Your task to perform on an android device: toggle translation in the chrome app Image 0: 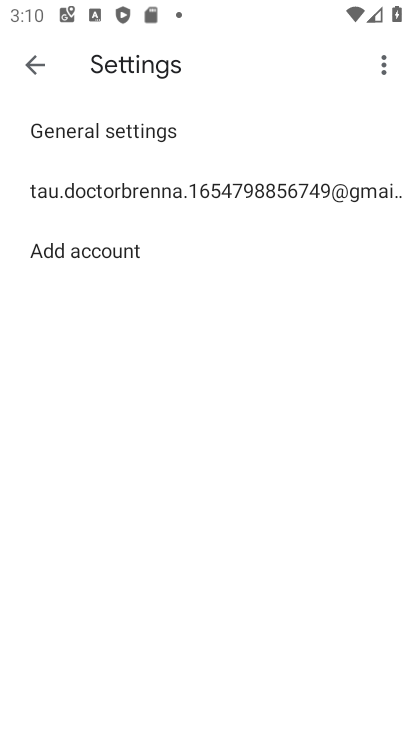
Step 0: press back button
Your task to perform on an android device: toggle translation in the chrome app Image 1: 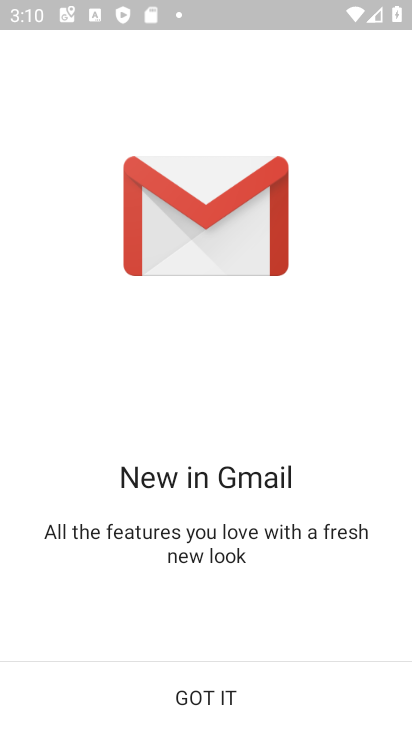
Step 1: click (155, 687)
Your task to perform on an android device: toggle translation in the chrome app Image 2: 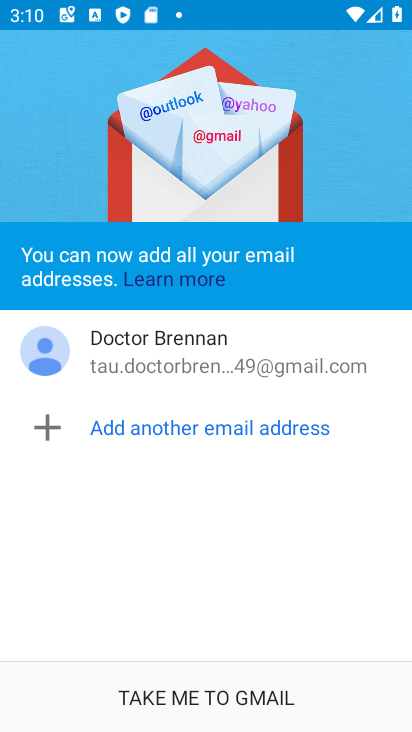
Step 2: press back button
Your task to perform on an android device: toggle translation in the chrome app Image 3: 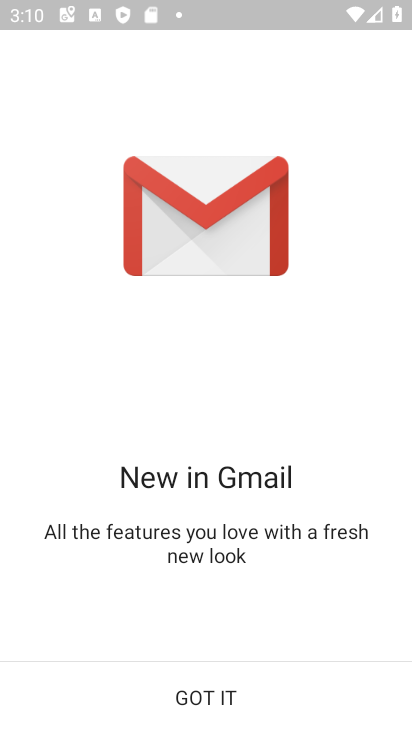
Step 3: click (201, 705)
Your task to perform on an android device: toggle translation in the chrome app Image 4: 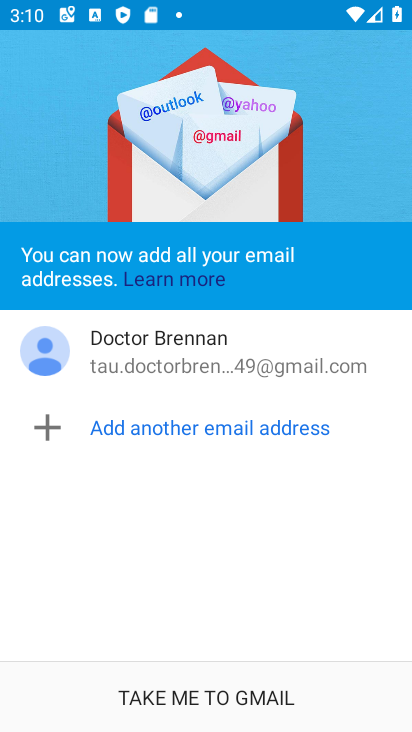
Step 4: press home button
Your task to perform on an android device: toggle translation in the chrome app Image 5: 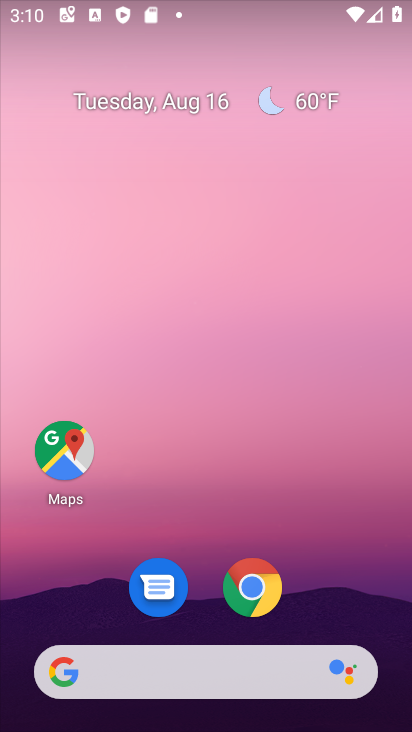
Step 5: click (250, 584)
Your task to perform on an android device: toggle translation in the chrome app Image 6: 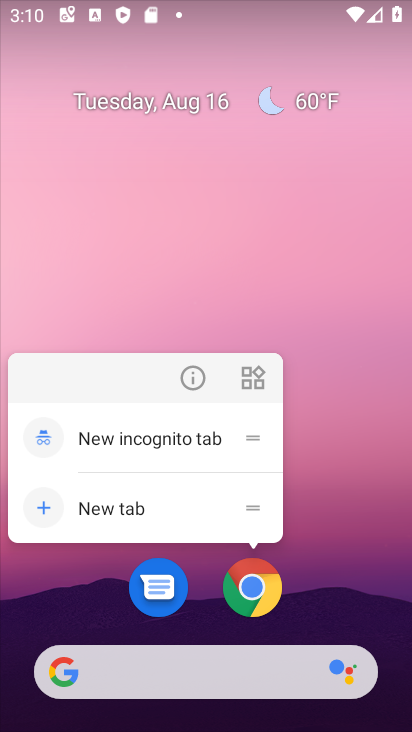
Step 6: click (260, 590)
Your task to perform on an android device: toggle translation in the chrome app Image 7: 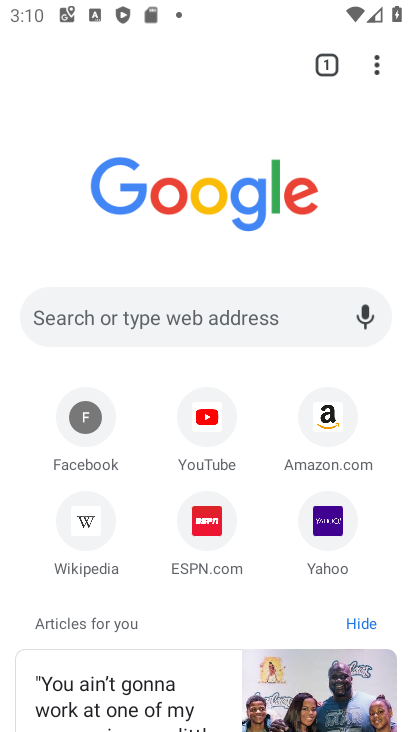
Step 7: drag from (372, 60) to (205, 554)
Your task to perform on an android device: toggle translation in the chrome app Image 8: 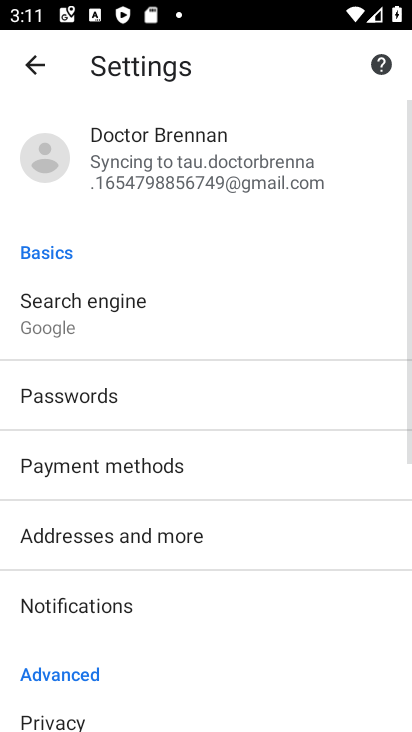
Step 8: drag from (136, 717) to (218, 282)
Your task to perform on an android device: toggle translation in the chrome app Image 9: 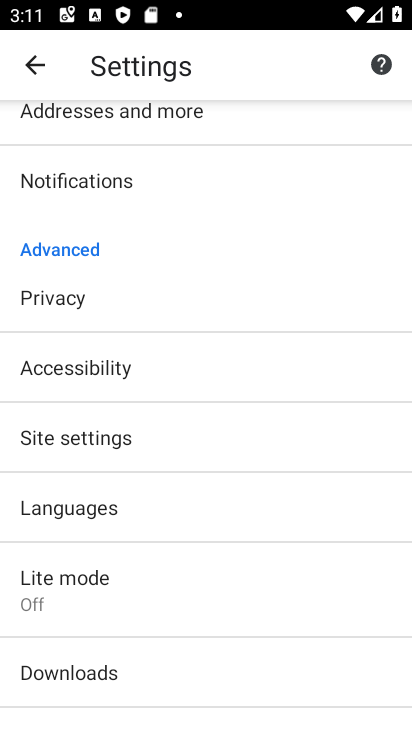
Step 9: click (106, 504)
Your task to perform on an android device: toggle translation in the chrome app Image 10: 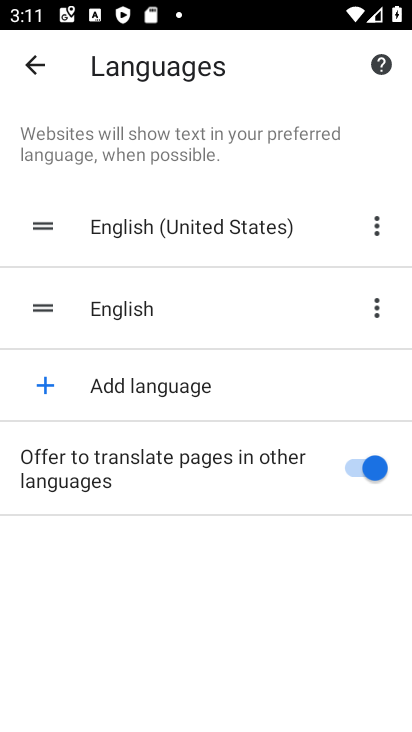
Step 10: click (365, 473)
Your task to perform on an android device: toggle translation in the chrome app Image 11: 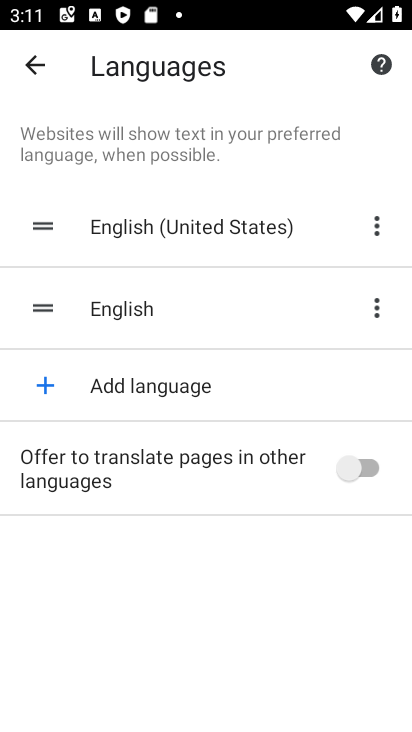
Step 11: task complete